Your task to perform on an android device: Open Google Chrome and open the bookmarks view Image 0: 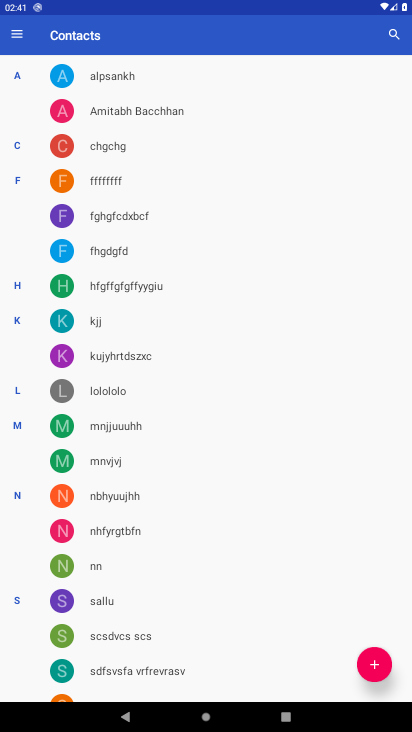
Step 0: press home button
Your task to perform on an android device: Open Google Chrome and open the bookmarks view Image 1: 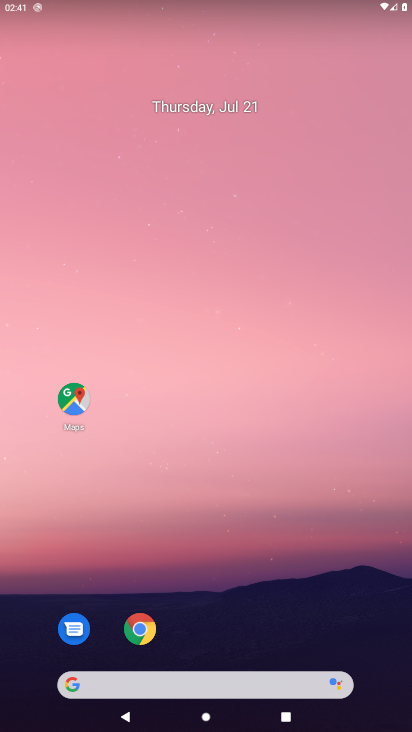
Step 1: click (139, 622)
Your task to perform on an android device: Open Google Chrome and open the bookmarks view Image 2: 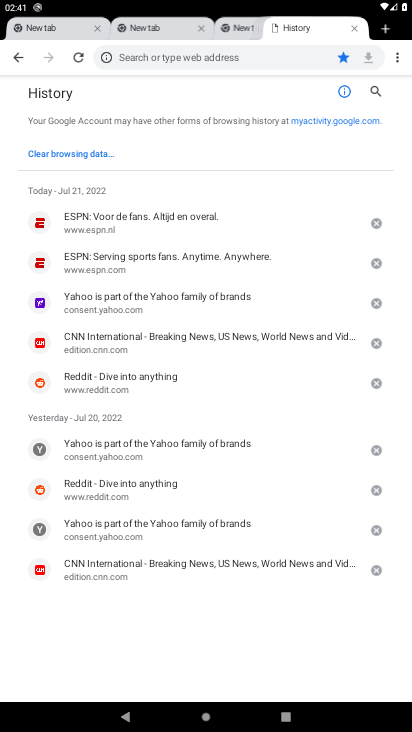
Step 2: click (400, 54)
Your task to perform on an android device: Open Google Chrome and open the bookmarks view Image 3: 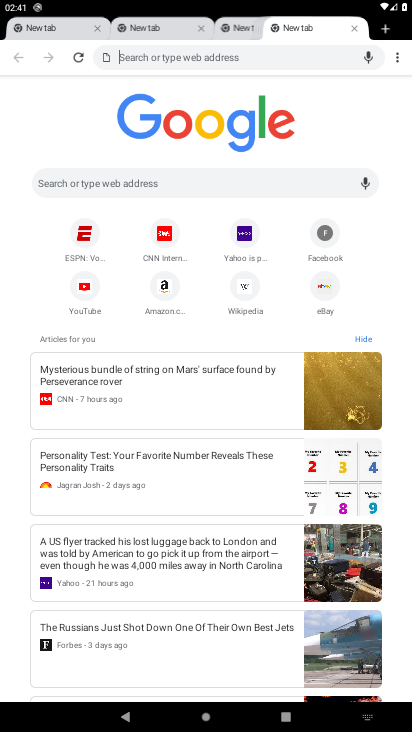
Step 3: click (398, 61)
Your task to perform on an android device: Open Google Chrome and open the bookmarks view Image 4: 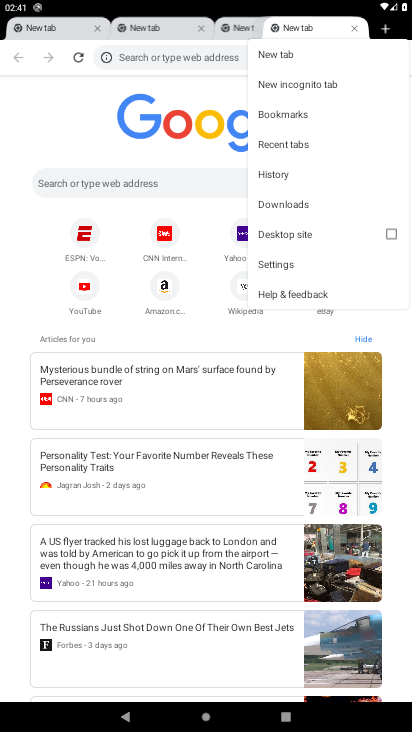
Step 4: click (273, 118)
Your task to perform on an android device: Open Google Chrome and open the bookmarks view Image 5: 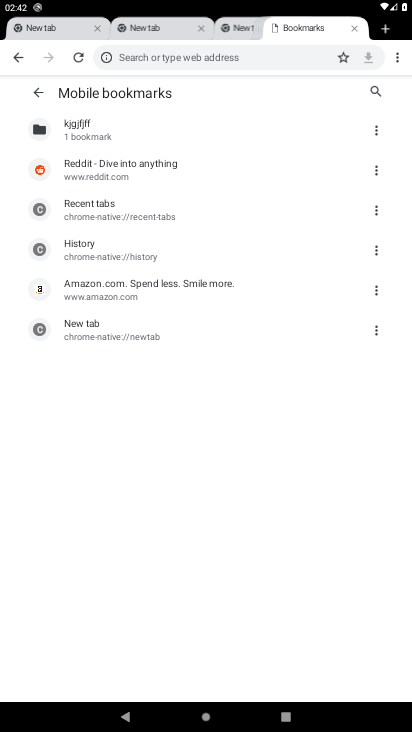
Step 5: task complete